Your task to perform on an android device: stop showing notifications on the lock screen Image 0: 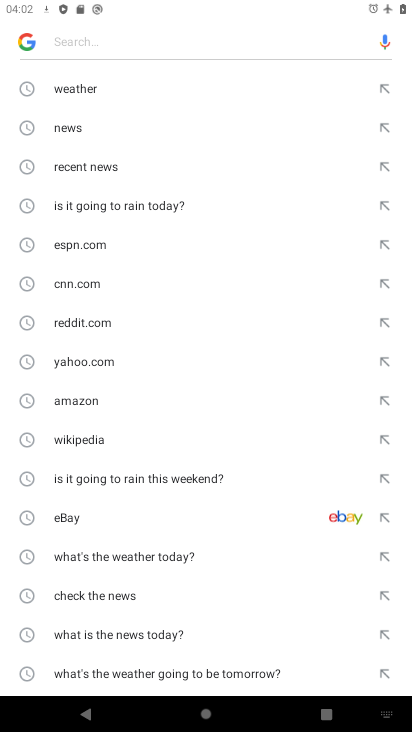
Step 0: press home button
Your task to perform on an android device: stop showing notifications on the lock screen Image 1: 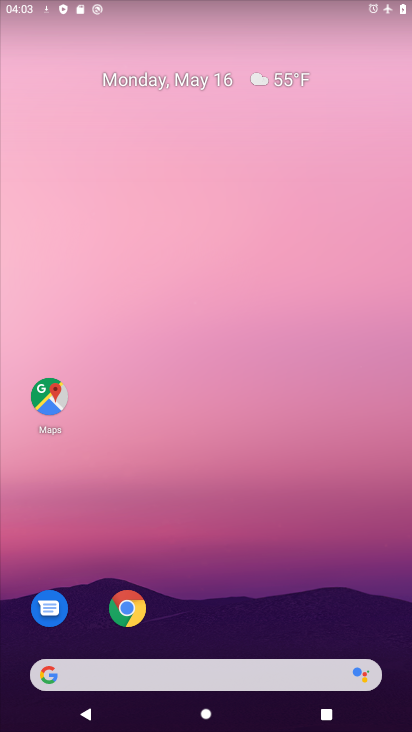
Step 1: drag from (228, 625) to (211, 185)
Your task to perform on an android device: stop showing notifications on the lock screen Image 2: 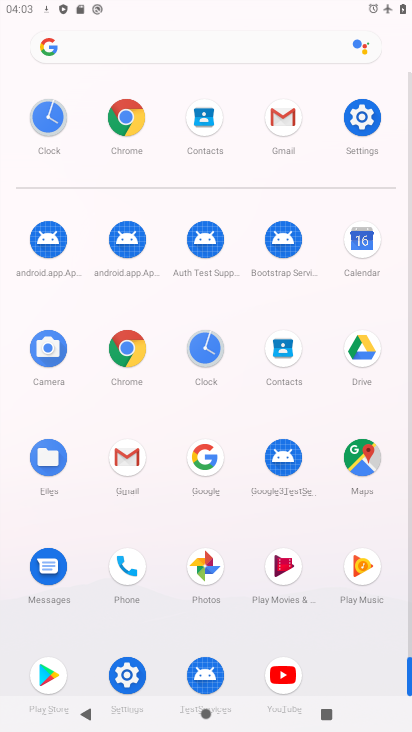
Step 2: click (354, 127)
Your task to perform on an android device: stop showing notifications on the lock screen Image 3: 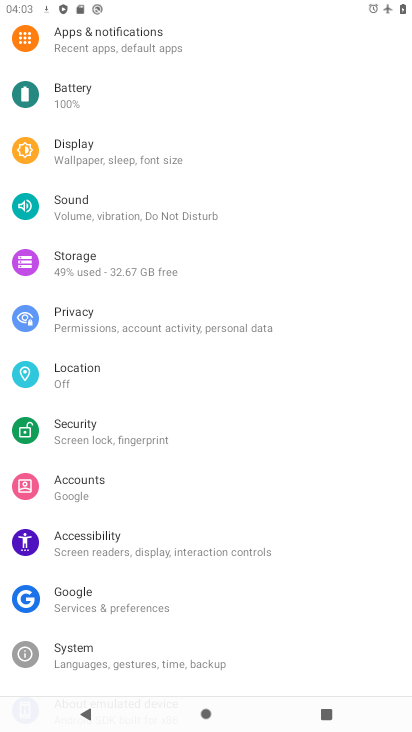
Step 3: click (151, 48)
Your task to perform on an android device: stop showing notifications on the lock screen Image 4: 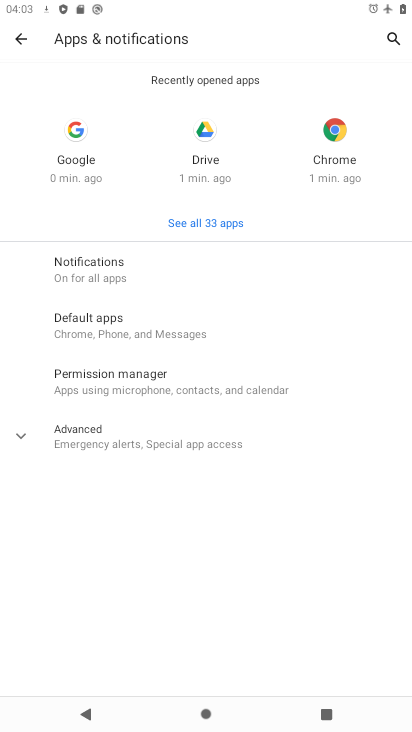
Step 4: click (133, 247)
Your task to perform on an android device: stop showing notifications on the lock screen Image 5: 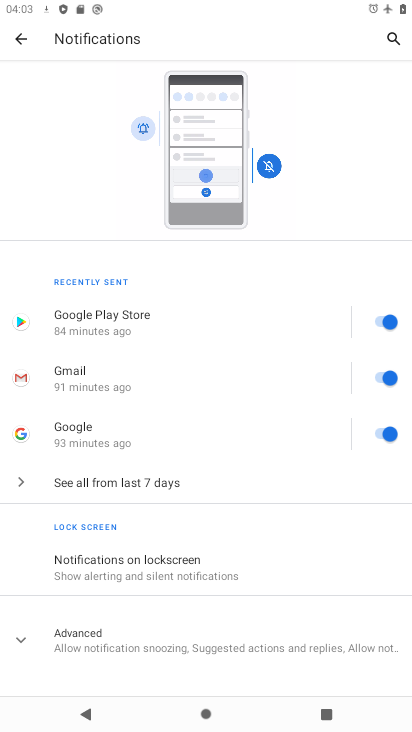
Step 5: drag from (148, 577) to (173, 414)
Your task to perform on an android device: stop showing notifications on the lock screen Image 6: 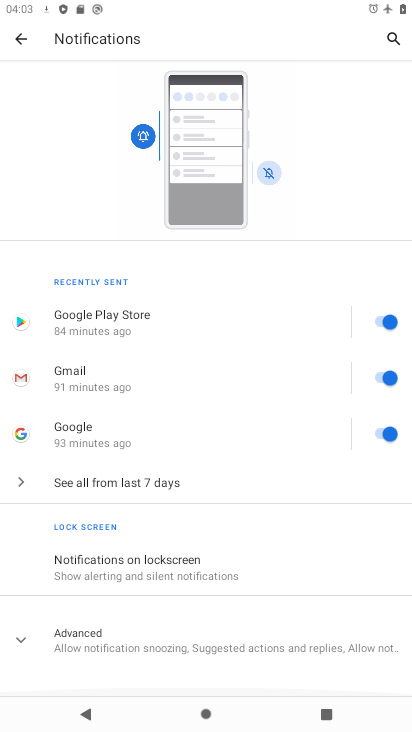
Step 6: click (156, 540)
Your task to perform on an android device: stop showing notifications on the lock screen Image 7: 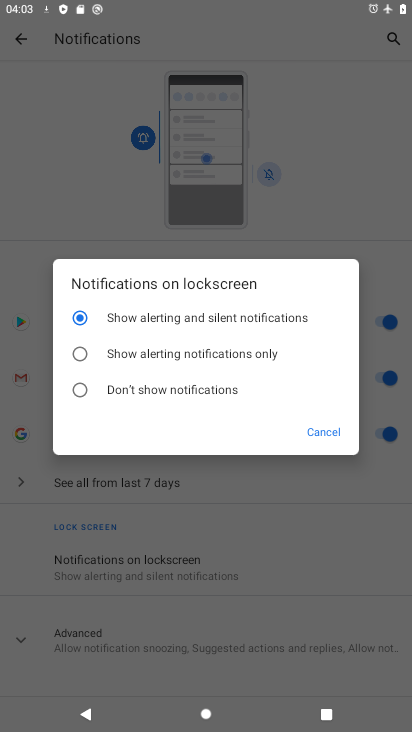
Step 7: click (137, 387)
Your task to perform on an android device: stop showing notifications on the lock screen Image 8: 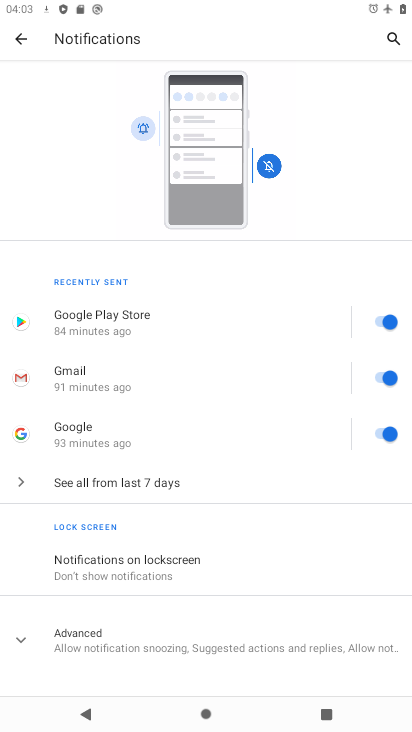
Step 8: task complete